Your task to perform on an android device: see creations saved in the google photos Image 0: 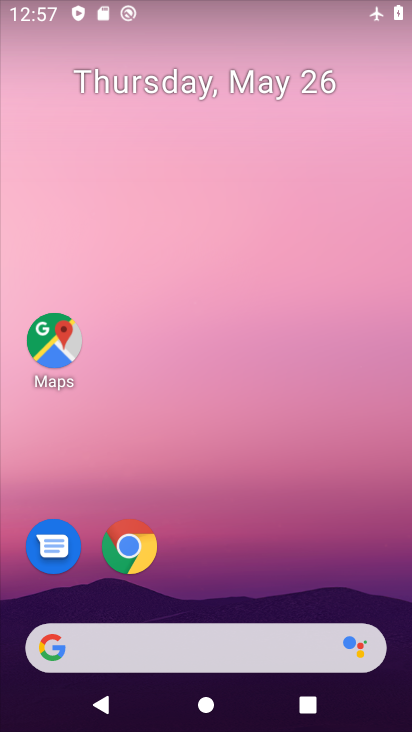
Step 0: drag from (325, 524) to (210, 27)
Your task to perform on an android device: see creations saved in the google photos Image 1: 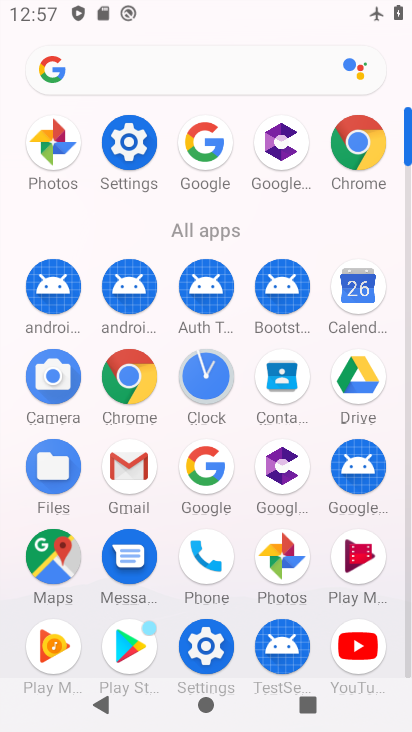
Step 1: click (290, 556)
Your task to perform on an android device: see creations saved in the google photos Image 2: 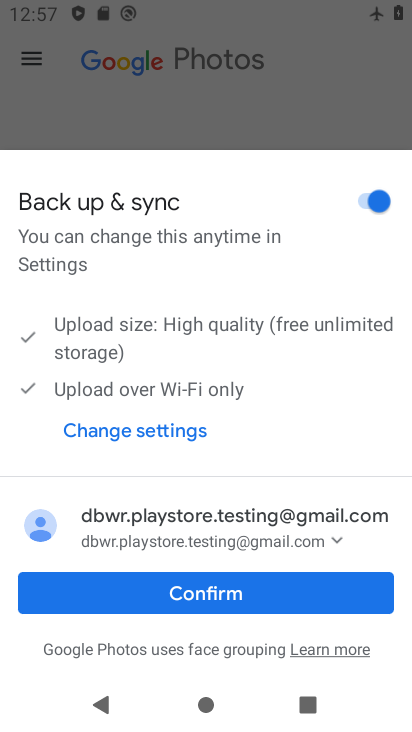
Step 2: click (308, 596)
Your task to perform on an android device: see creations saved in the google photos Image 3: 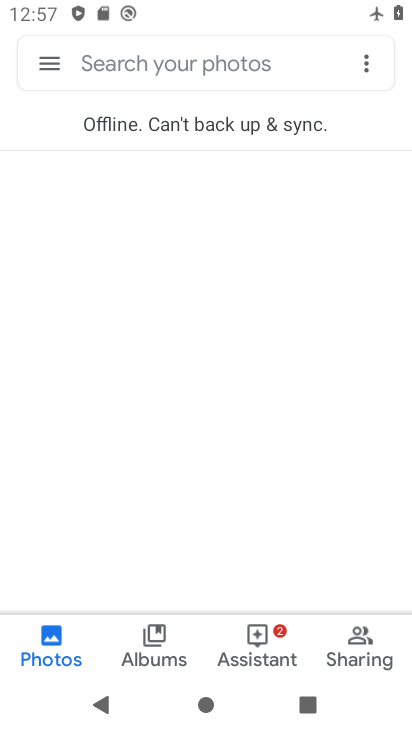
Step 3: click (218, 58)
Your task to perform on an android device: see creations saved in the google photos Image 4: 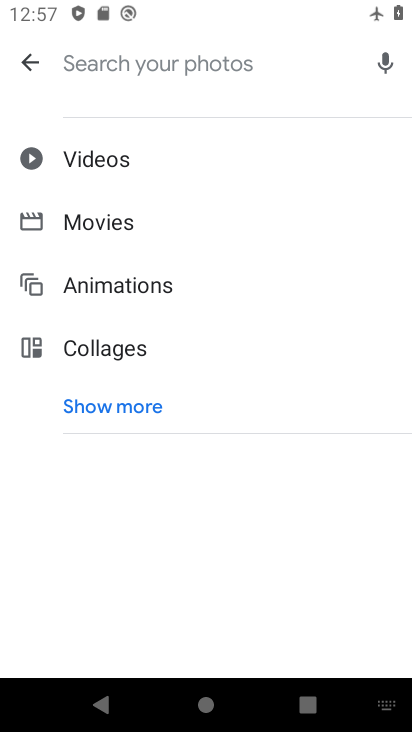
Step 4: type "creations"
Your task to perform on an android device: see creations saved in the google photos Image 5: 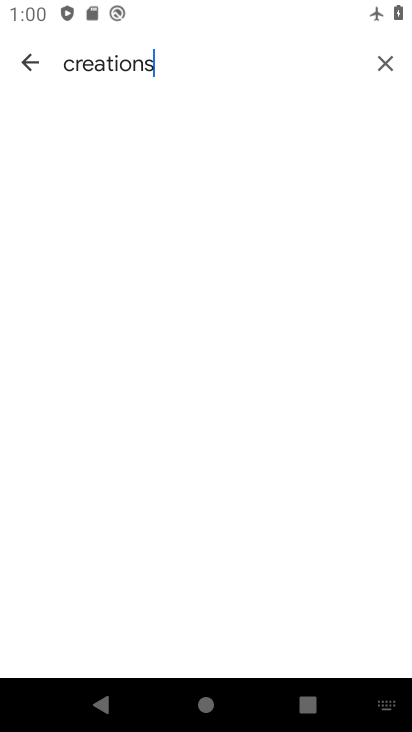
Step 5: task complete